Your task to perform on an android device: toggle data saver in the chrome app Image 0: 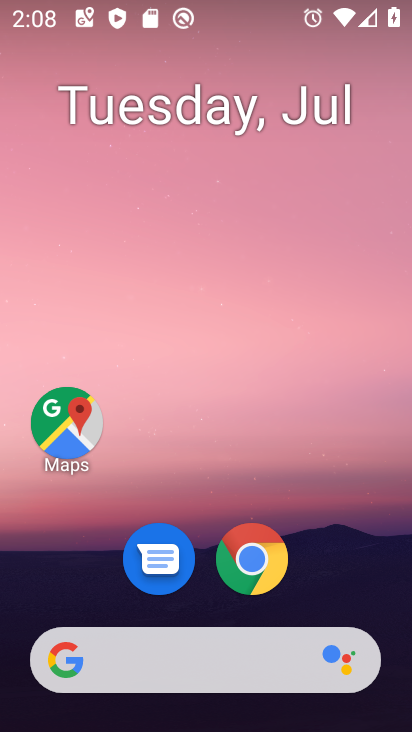
Step 0: click (0, 333)
Your task to perform on an android device: toggle data saver in the chrome app Image 1: 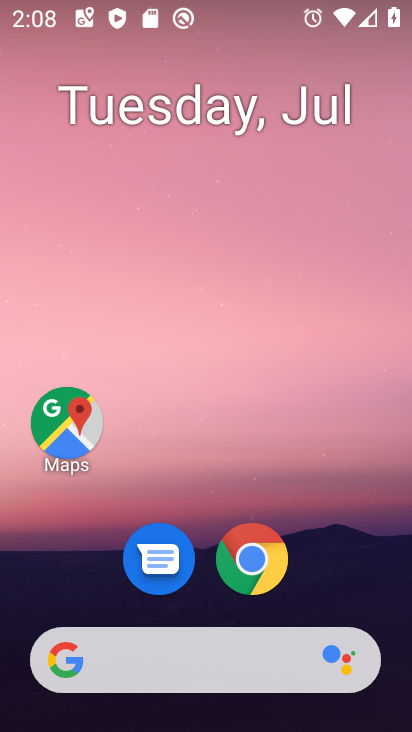
Step 1: drag from (367, 581) to (401, 142)
Your task to perform on an android device: toggle data saver in the chrome app Image 2: 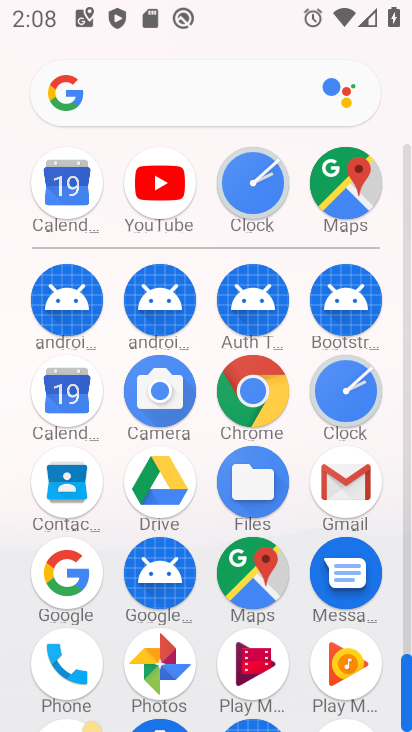
Step 2: click (279, 387)
Your task to perform on an android device: toggle data saver in the chrome app Image 3: 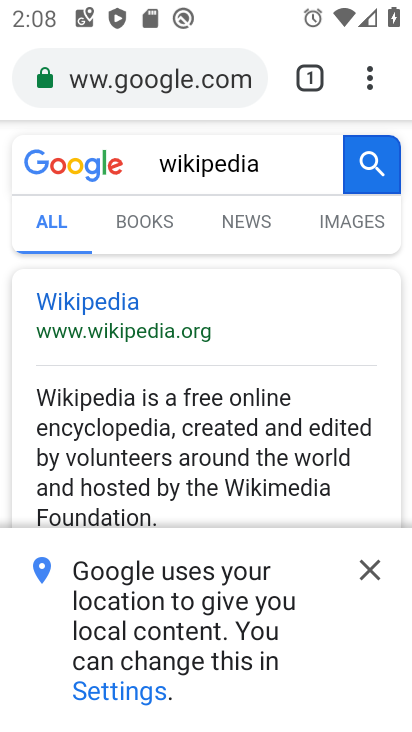
Step 3: click (367, 86)
Your task to perform on an android device: toggle data saver in the chrome app Image 4: 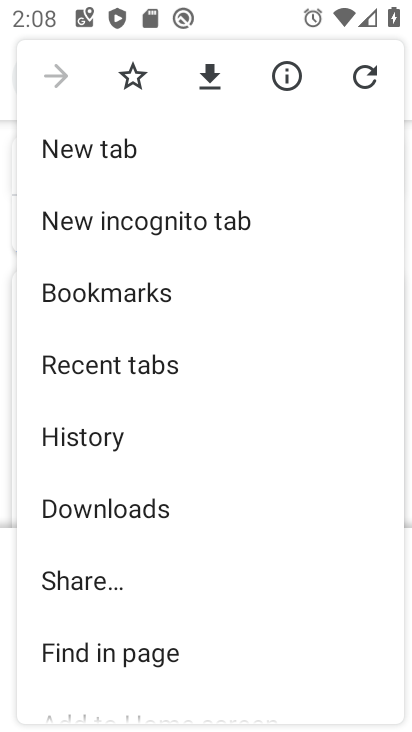
Step 4: drag from (328, 501) to (342, 374)
Your task to perform on an android device: toggle data saver in the chrome app Image 5: 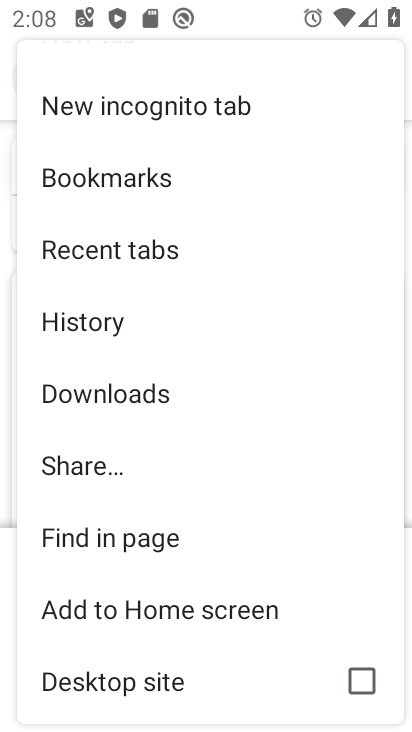
Step 5: drag from (302, 558) to (311, 395)
Your task to perform on an android device: toggle data saver in the chrome app Image 6: 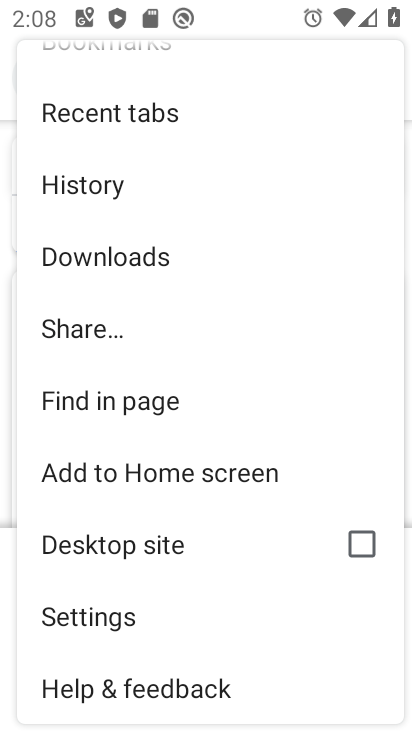
Step 6: click (203, 620)
Your task to perform on an android device: toggle data saver in the chrome app Image 7: 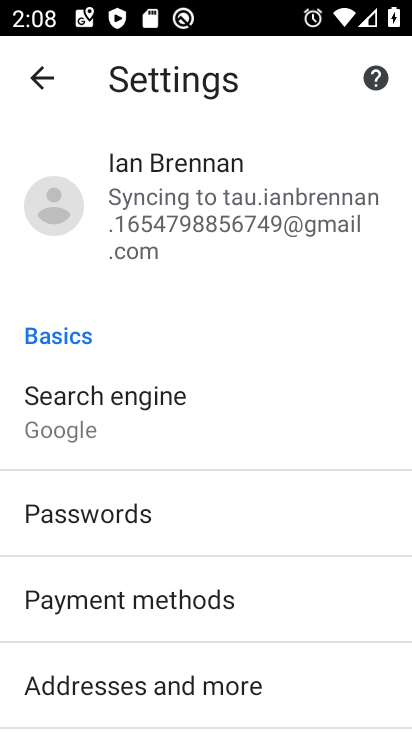
Step 7: drag from (360, 609) to (367, 538)
Your task to perform on an android device: toggle data saver in the chrome app Image 8: 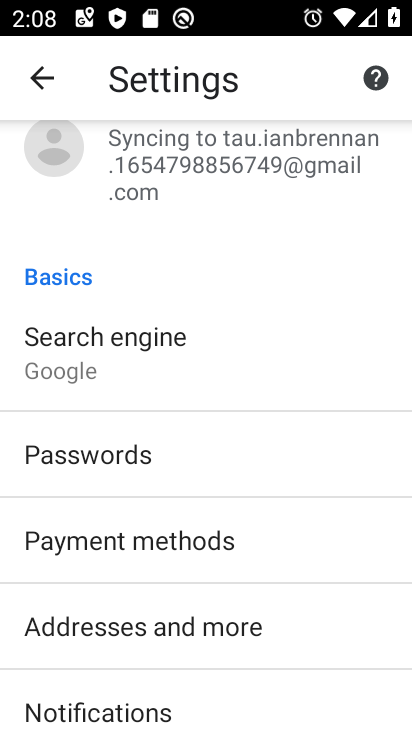
Step 8: drag from (355, 666) to (365, 604)
Your task to perform on an android device: toggle data saver in the chrome app Image 9: 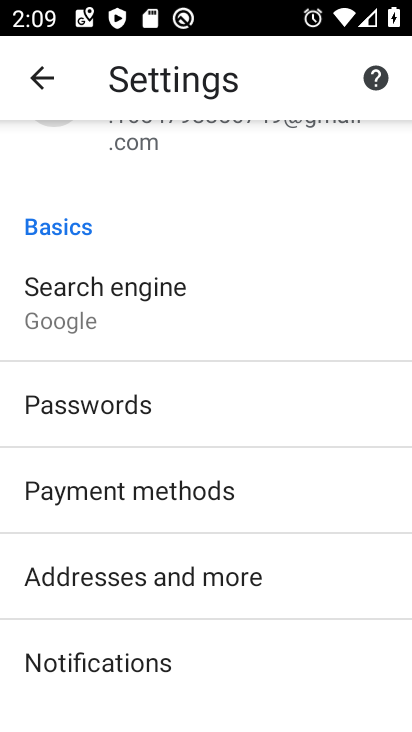
Step 9: drag from (354, 638) to (357, 558)
Your task to perform on an android device: toggle data saver in the chrome app Image 10: 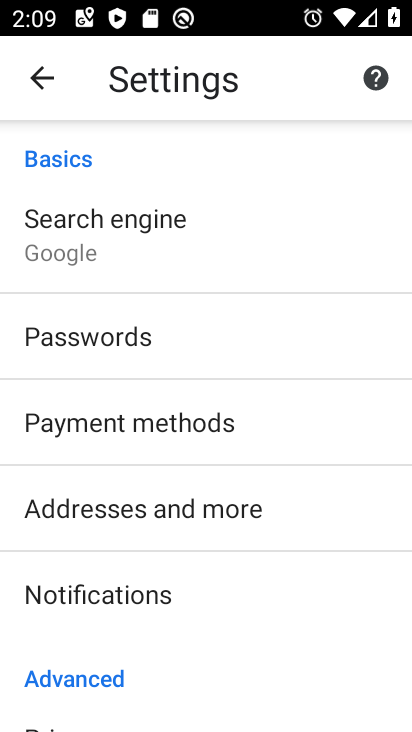
Step 10: drag from (339, 633) to (341, 524)
Your task to perform on an android device: toggle data saver in the chrome app Image 11: 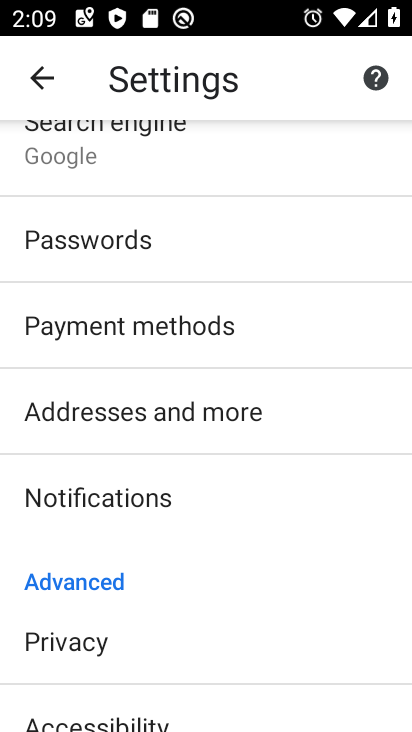
Step 11: drag from (331, 625) to (331, 492)
Your task to perform on an android device: toggle data saver in the chrome app Image 12: 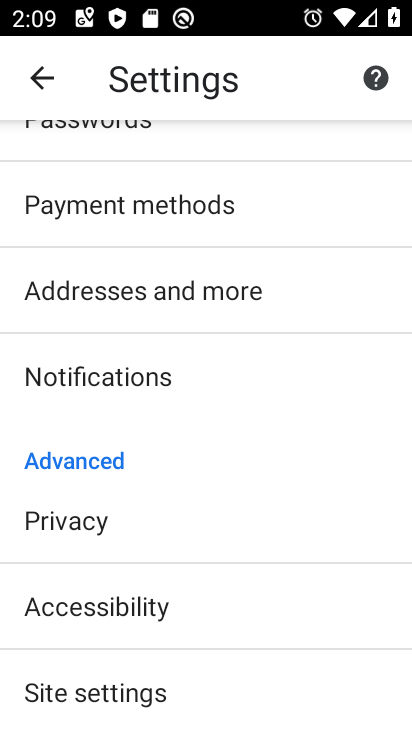
Step 12: drag from (296, 583) to (301, 455)
Your task to perform on an android device: toggle data saver in the chrome app Image 13: 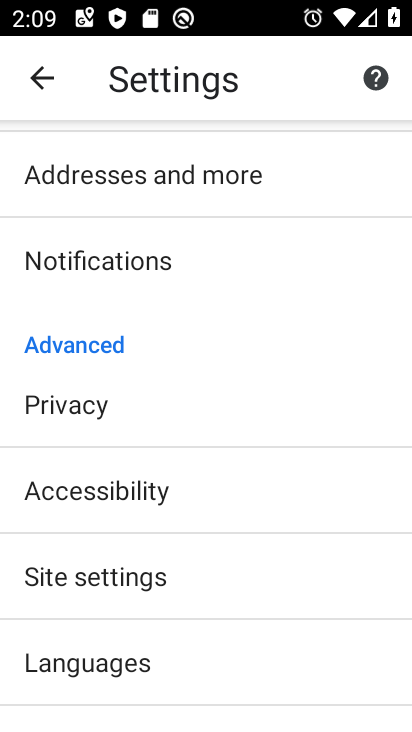
Step 13: drag from (314, 614) to (329, 498)
Your task to perform on an android device: toggle data saver in the chrome app Image 14: 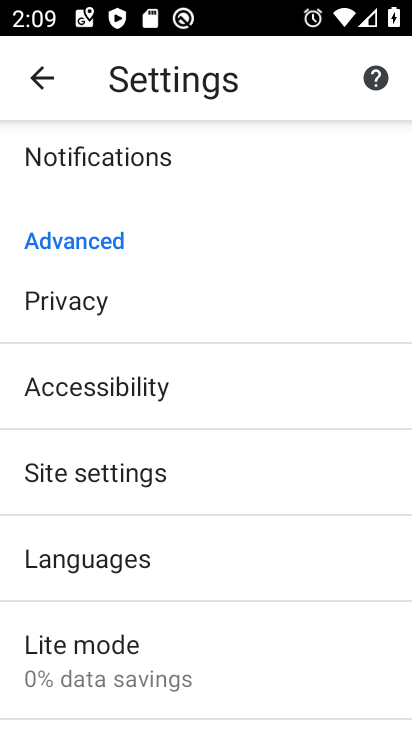
Step 14: click (344, 631)
Your task to perform on an android device: toggle data saver in the chrome app Image 15: 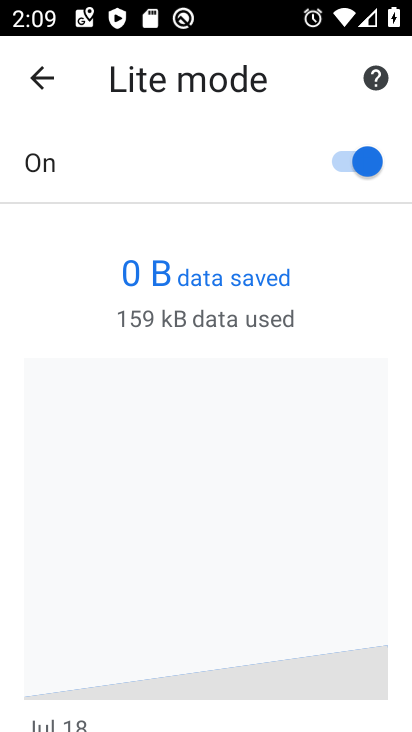
Step 15: click (364, 165)
Your task to perform on an android device: toggle data saver in the chrome app Image 16: 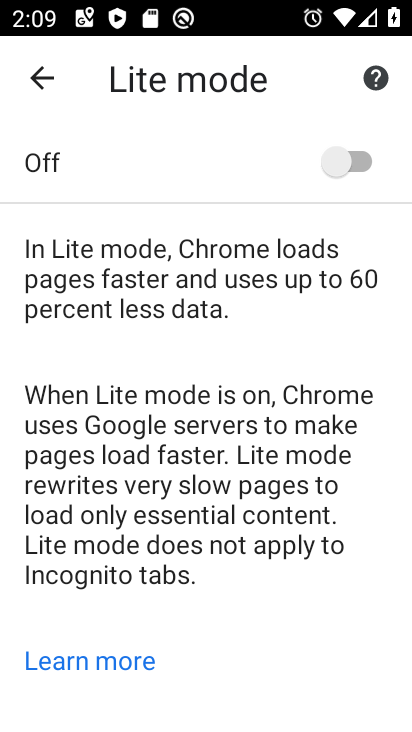
Step 16: task complete